Your task to perform on an android device: Play the last video I watched on Youtube Image 0: 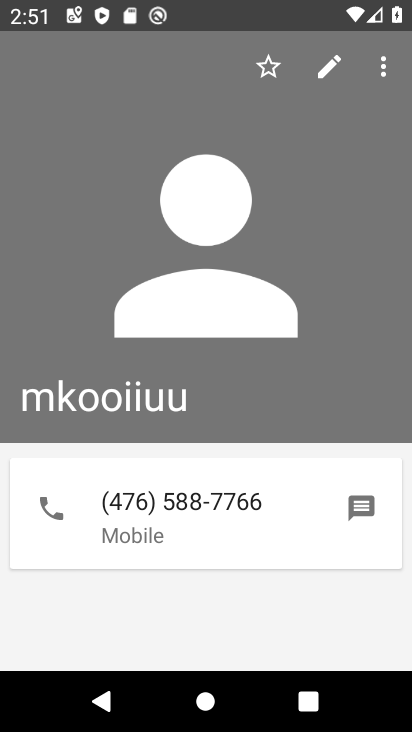
Step 0: press home button
Your task to perform on an android device: Play the last video I watched on Youtube Image 1: 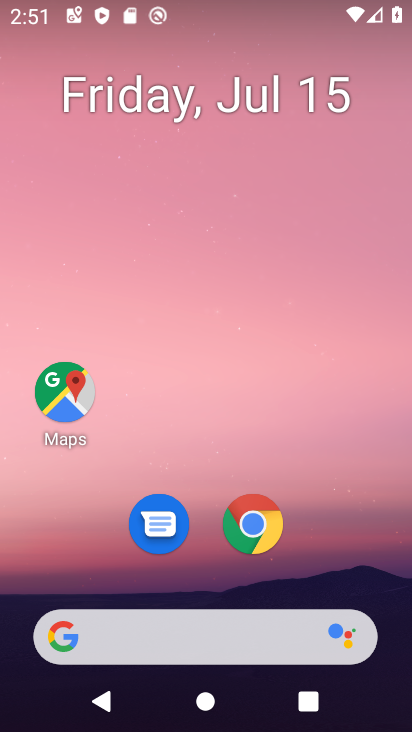
Step 1: drag from (198, 635) to (347, 150)
Your task to perform on an android device: Play the last video I watched on Youtube Image 2: 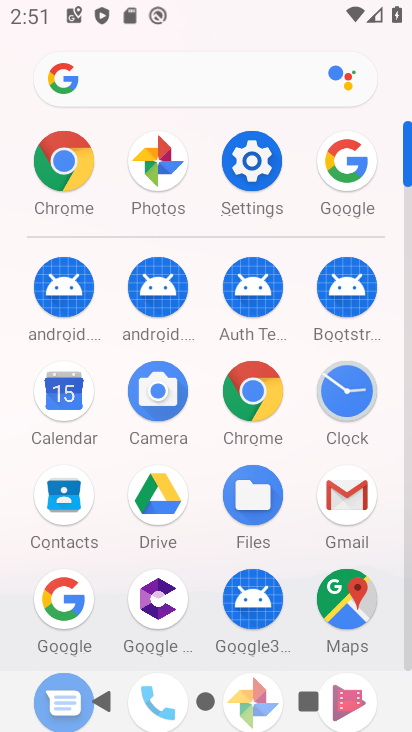
Step 2: drag from (279, 645) to (394, 160)
Your task to perform on an android device: Play the last video I watched on Youtube Image 3: 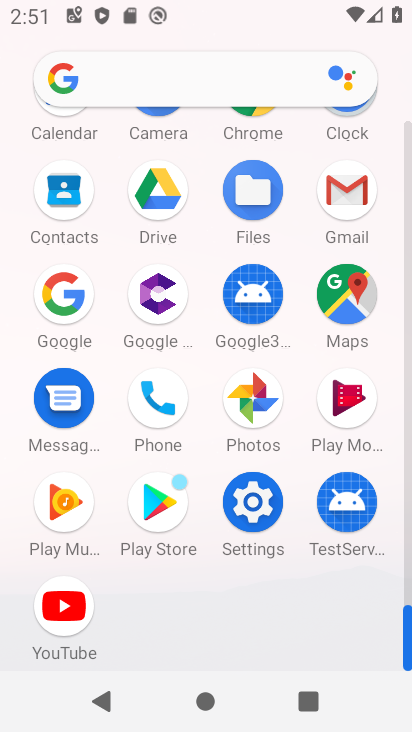
Step 3: click (57, 612)
Your task to perform on an android device: Play the last video I watched on Youtube Image 4: 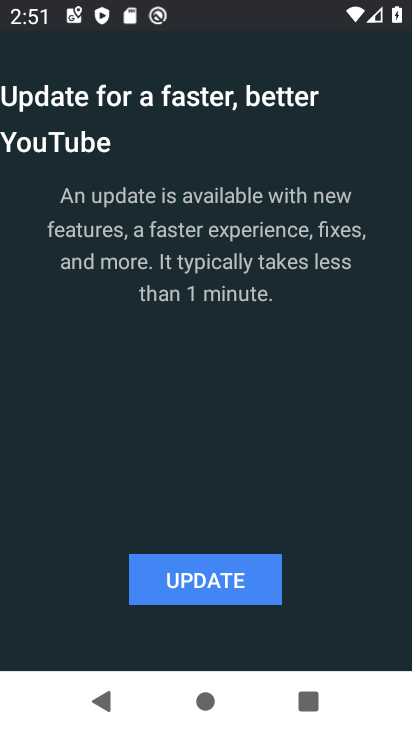
Step 4: click (197, 566)
Your task to perform on an android device: Play the last video I watched on Youtube Image 5: 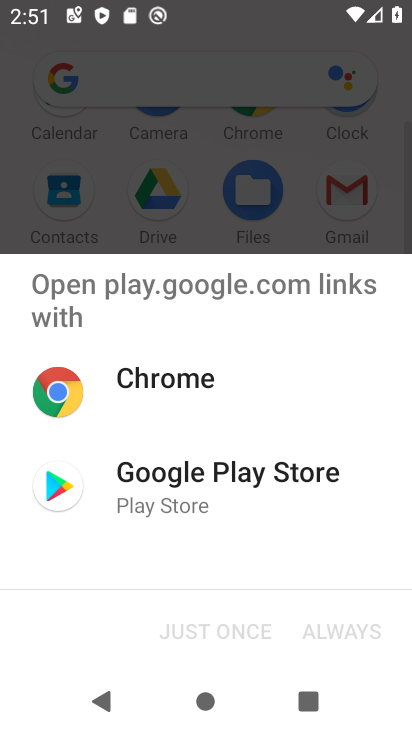
Step 5: click (178, 486)
Your task to perform on an android device: Play the last video I watched on Youtube Image 6: 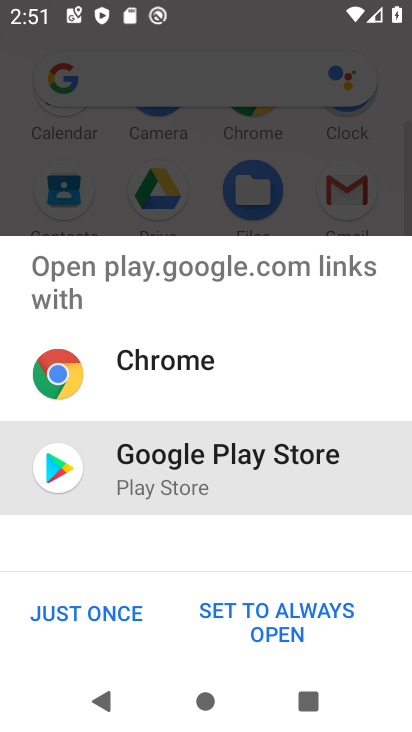
Step 6: click (96, 632)
Your task to perform on an android device: Play the last video I watched on Youtube Image 7: 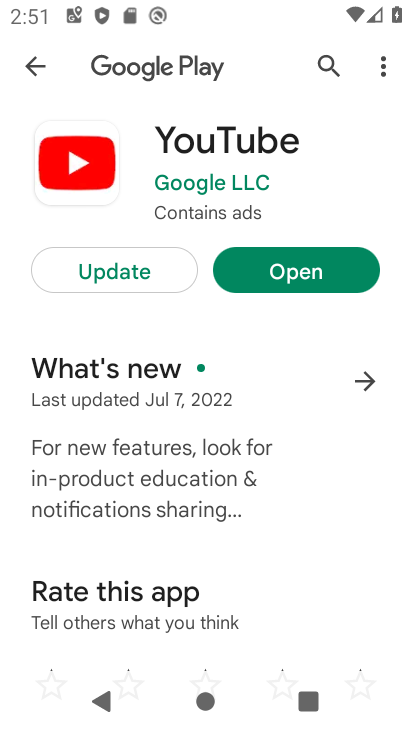
Step 7: click (154, 269)
Your task to perform on an android device: Play the last video I watched on Youtube Image 8: 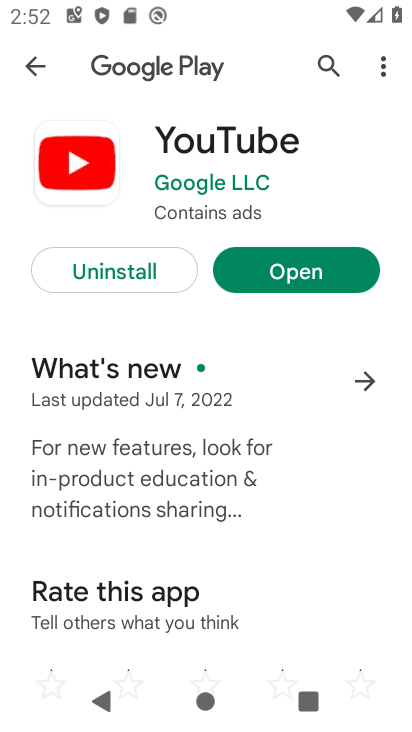
Step 8: click (267, 269)
Your task to perform on an android device: Play the last video I watched on Youtube Image 9: 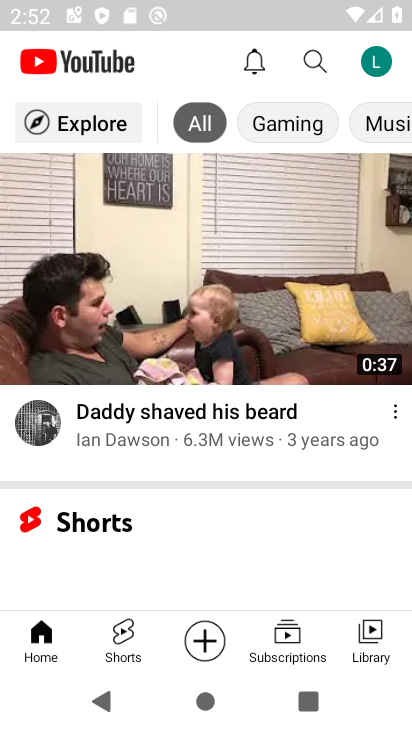
Step 9: click (359, 639)
Your task to perform on an android device: Play the last video I watched on Youtube Image 10: 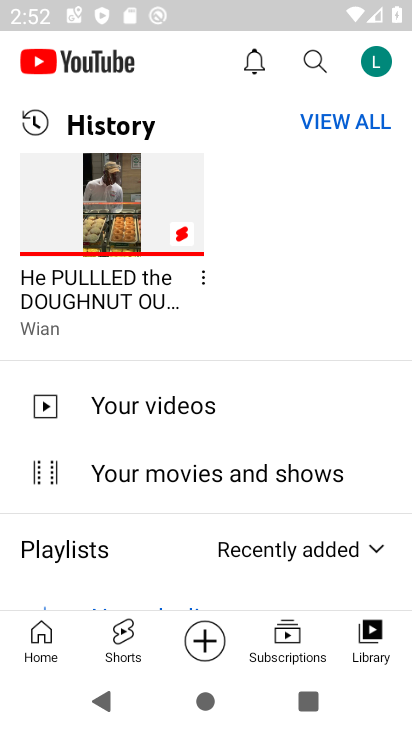
Step 10: click (116, 195)
Your task to perform on an android device: Play the last video I watched on Youtube Image 11: 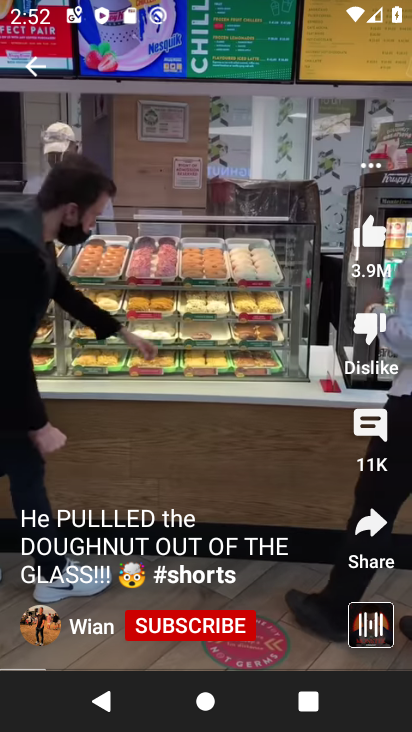
Step 11: task complete